Your task to perform on an android device: Search for vegetarian restaurants on Maps Image 0: 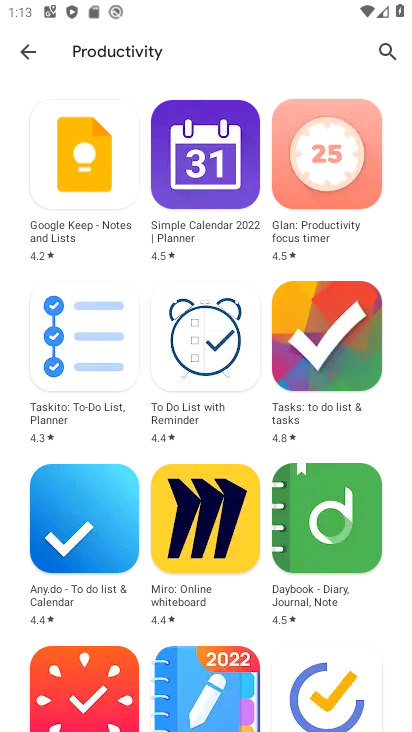
Step 0: press back button
Your task to perform on an android device: Search for vegetarian restaurants on Maps Image 1: 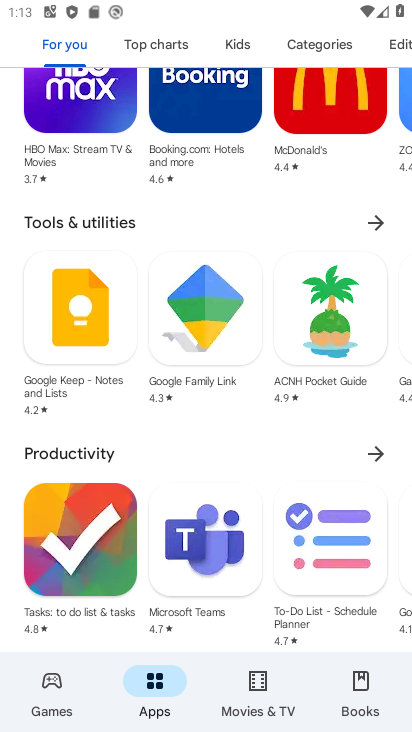
Step 1: press back button
Your task to perform on an android device: Search for vegetarian restaurants on Maps Image 2: 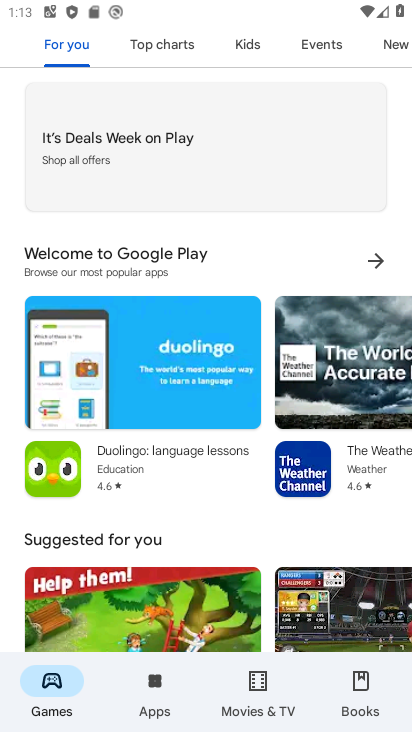
Step 2: press back button
Your task to perform on an android device: Search for vegetarian restaurants on Maps Image 3: 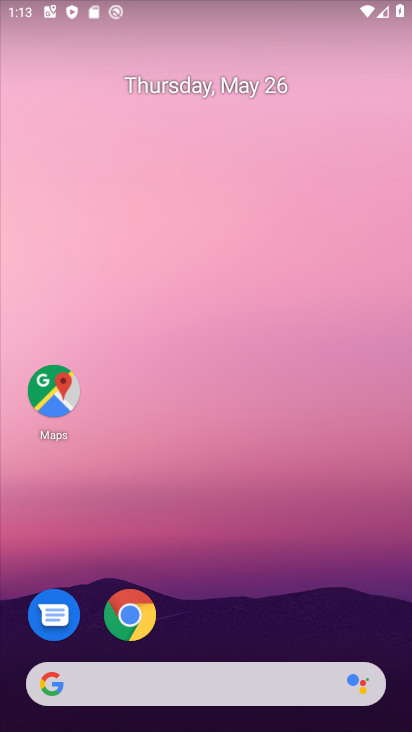
Step 3: click (70, 392)
Your task to perform on an android device: Search for vegetarian restaurants on Maps Image 4: 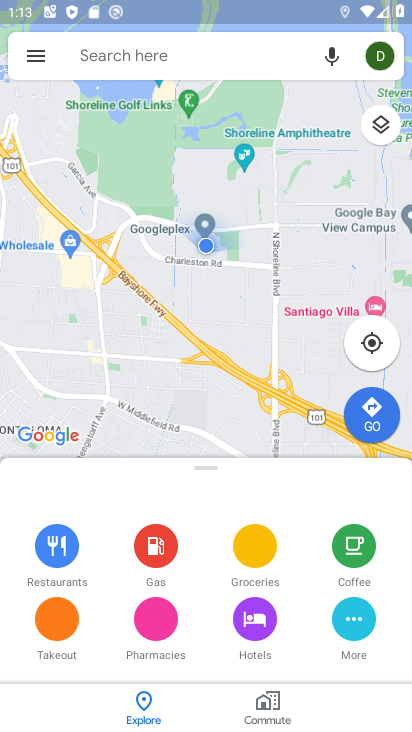
Step 4: click (164, 52)
Your task to perform on an android device: Search for vegetarian restaurants on Maps Image 5: 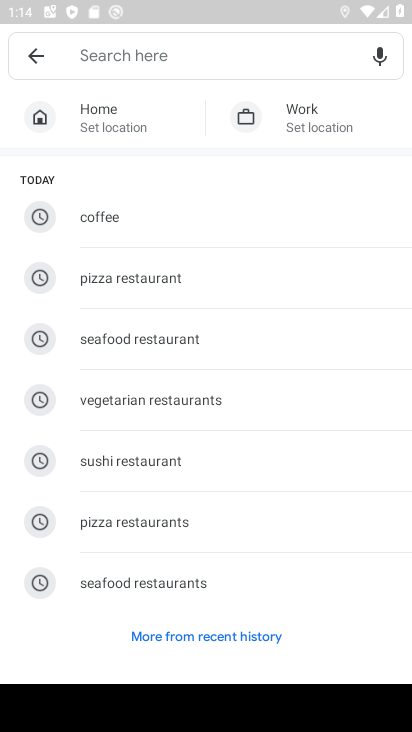
Step 5: click (103, 391)
Your task to perform on an android device: Search for vegetarian restaurants on Maps Image 6: 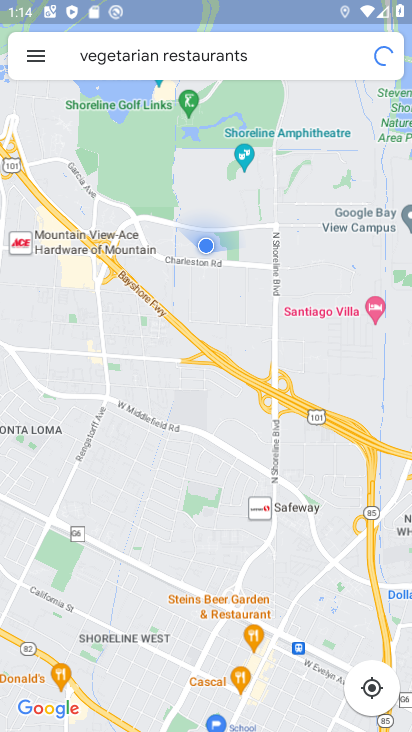
Step 6: task complete